Your task to perform on an android device: find which apps use the phone's location Image 0: 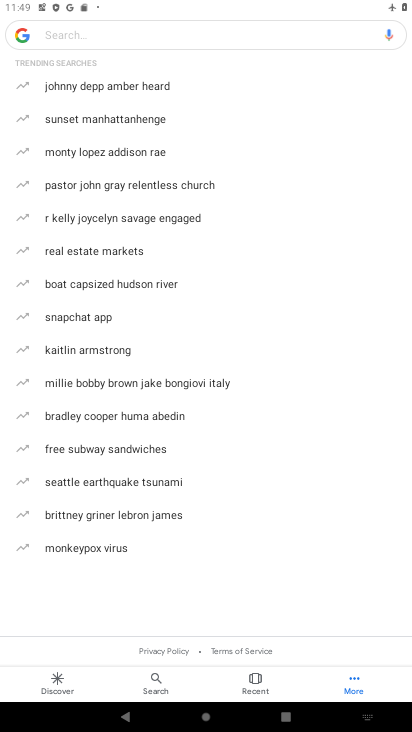
Step 0: press home button
Your task to perform on an android device: find which apps use the phone's location Image 1: 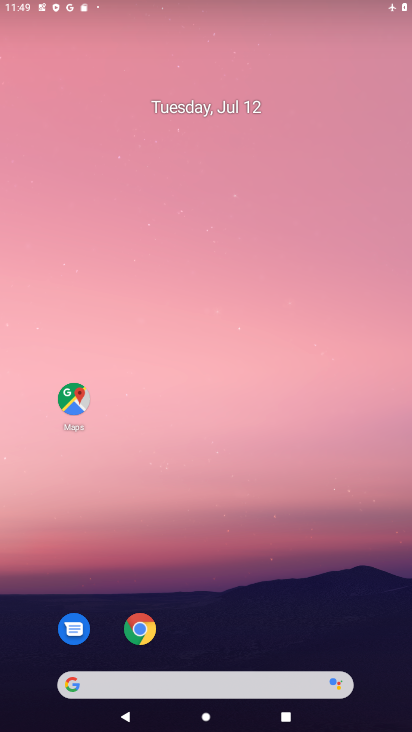
Step 1: drag from (297, 587) to (286, 244)
Your task to perform on an android device: find which apps use the phone's location Image 2: 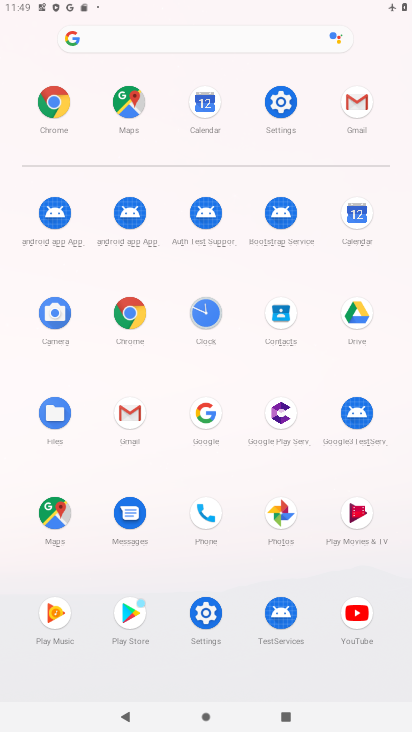
Step 2: click (274, 97)
Your task to perform on an android device: find which apps use the phone's location Image 3: 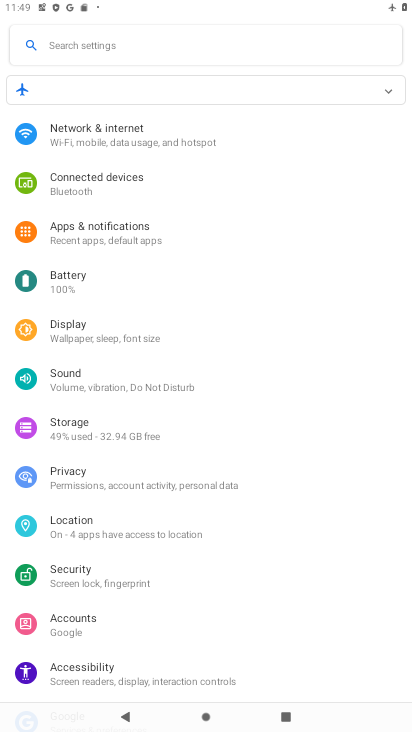
Step 3: click (101, 529)
Your task to perform on an android device: find which apps use the phone's location Image 4: 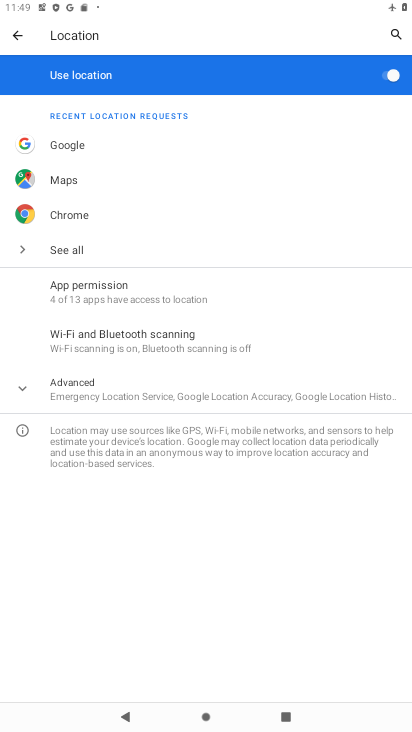
Step 4: task complete